Your task to perform on an android device: turn pop-ups on in chrome Image 0: 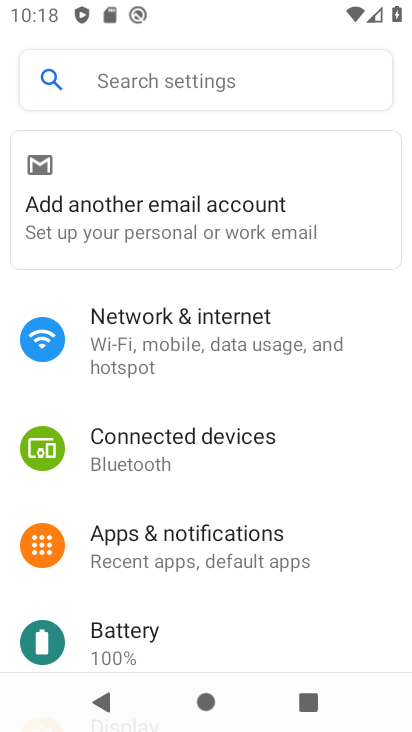
Step 0: press home button
Your task to perform on an android device: turn pop-ups on in chrome Image 1: 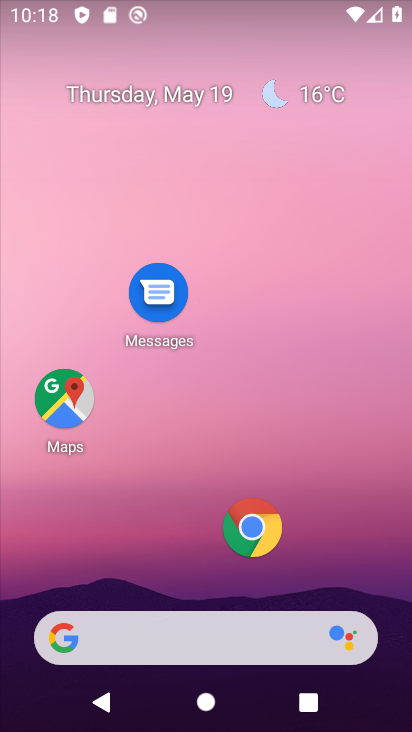
Step 1: click (249, 542)
Your task to perform on an android device: turn pop-ups on in chrome Image 2: 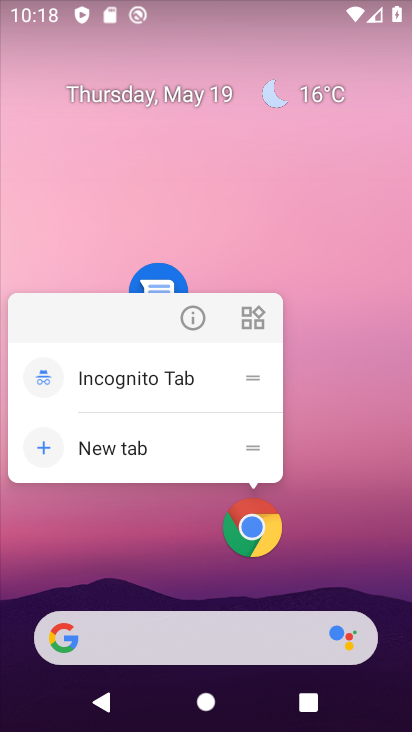
Step 2: click (250, 533)
Your task to perform on an android device: turn pop-ups on in chrome Image 3: 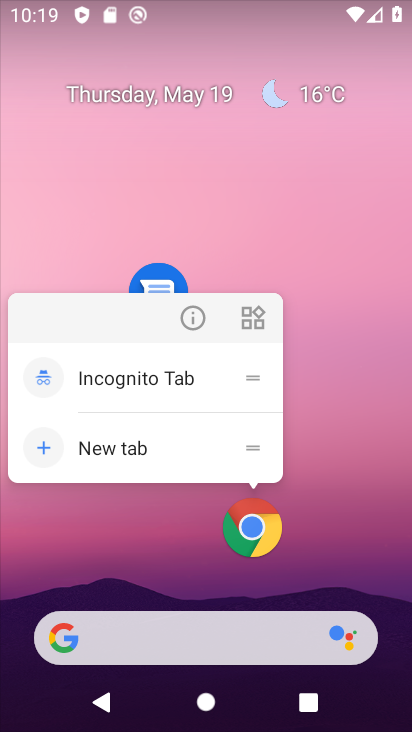
Step 3: click (250, 533)
Your task to perform on an android device: turn pop-ups on in chrome Image 4: 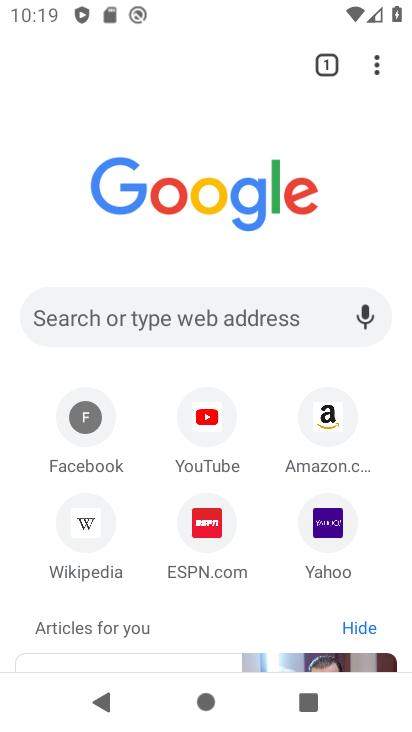
Step 4: click (379, 62)
Your task to perform on an android device: turn pop-ups on in chrome Image 5: 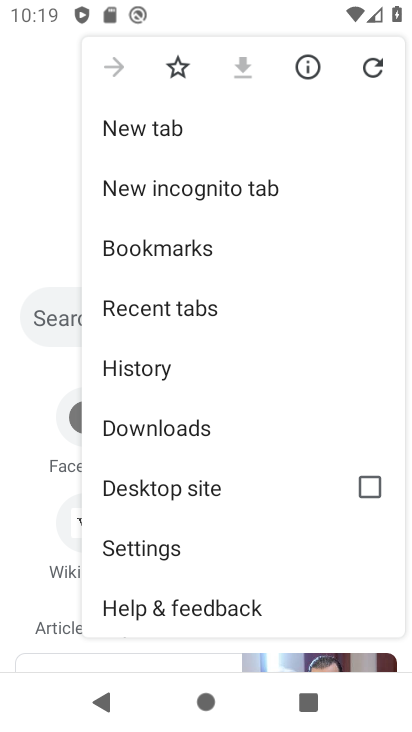
Step 5: click (109, 550)
Your task to perform on an android device: turn pop-ups on in chrome Image 6: 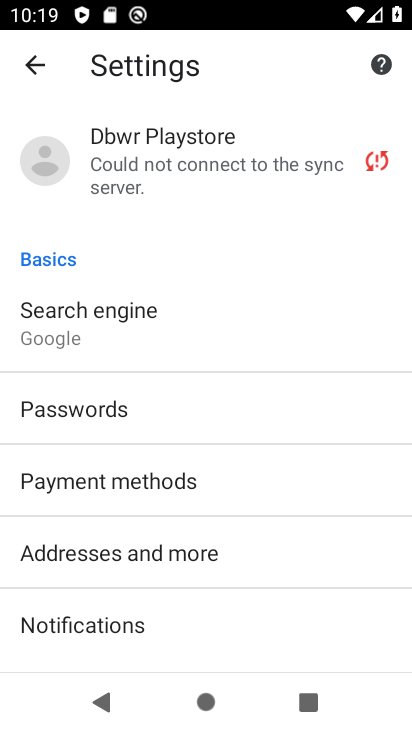
Step 6: drag from (169, 636) to (142, 196)
Your task to perform on an android device: turn pop-ups on in chrome Image 7: 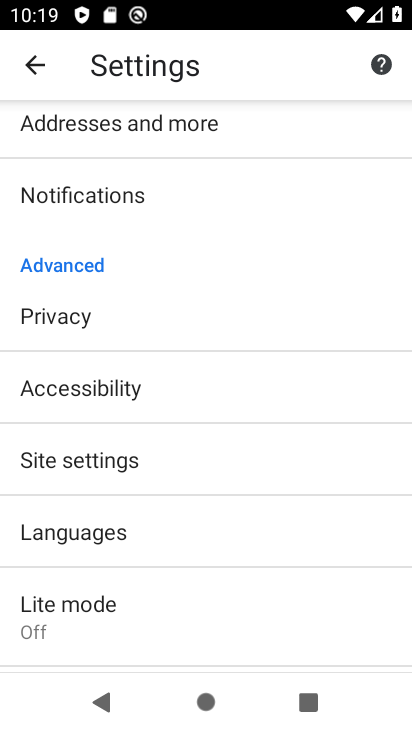
Step 7: drag from (136, 573) to (109, 295)
Your task to perform on an android device: turn pop-ups on in chrome Image 8: 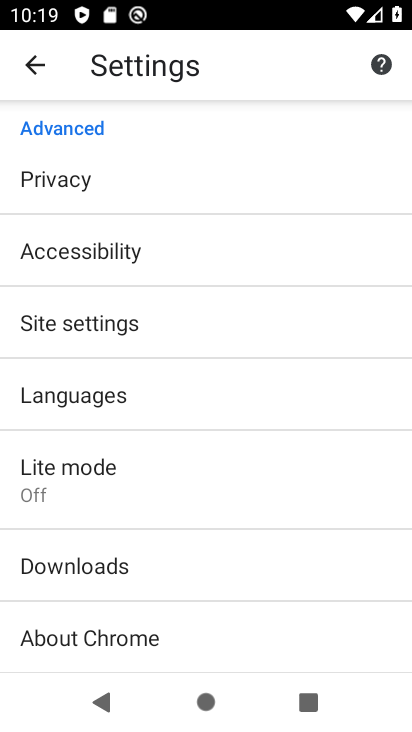
Step 8: click (96, 333)
Your task to perform on an android device: turn pop-ups on in chrome Image 9: 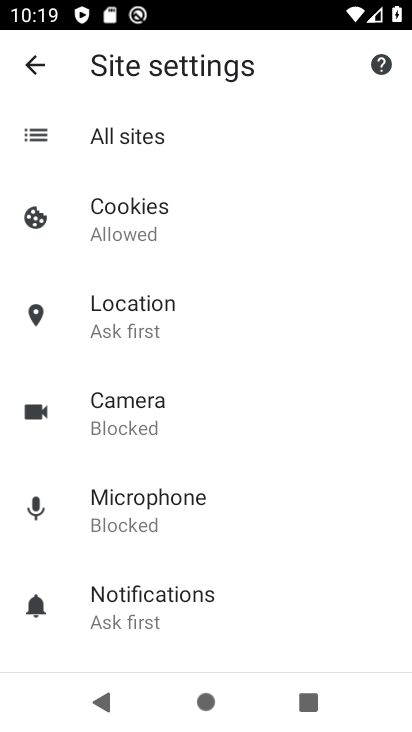
Step 9: drag from (187, 577) to (169, 279)
Your task to perform on an android device: turn pop-ups on in chrome Image 10: 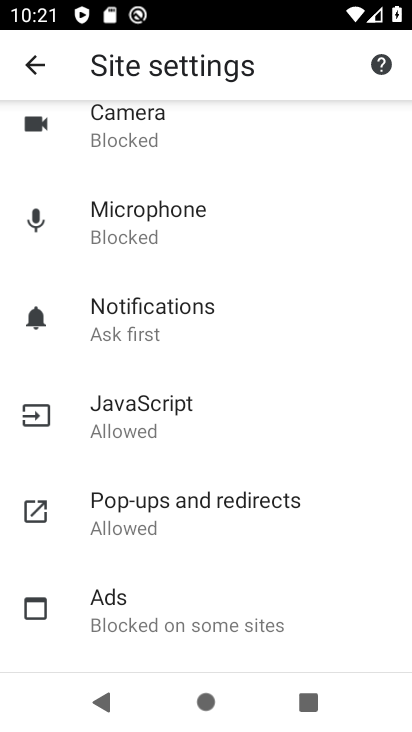
Step 10: click (111, 512)
Your task to perform on an android device: turn pop-ups on in chrome Image 11: 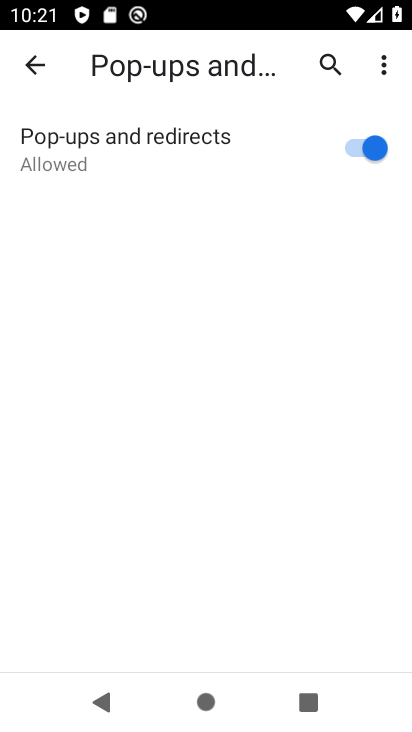
Step 11: task complete